Your task to perform on an android device: Open CNN.com Image 0: 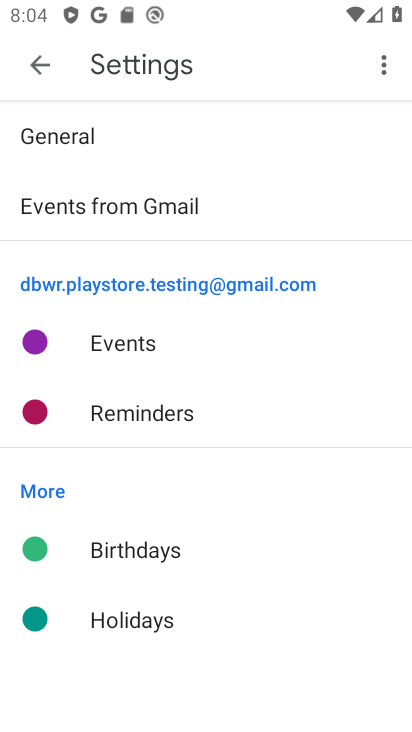
Step 0: press home button
Your task to perform on an android device: Open CNN.com Image 1: 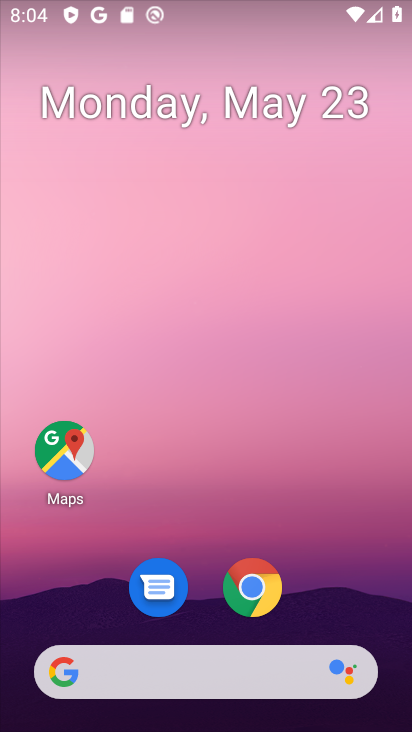
Step 1: click (255, 600)
Your task to perform on an android device: Open CNN.com Image 2: 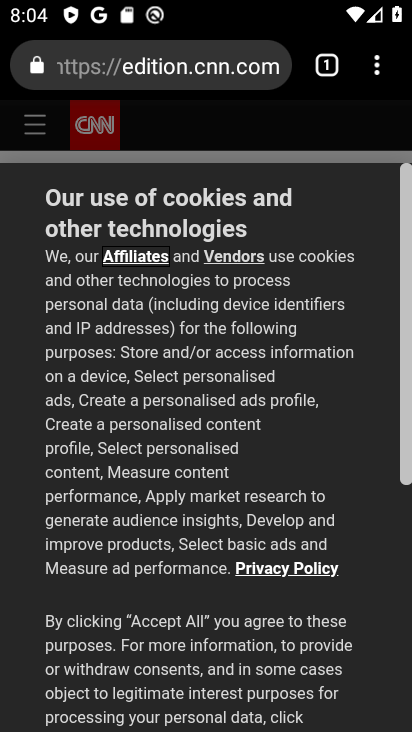
Step 2: task complete